Your task to perform on an android device: Open settings Image 0: 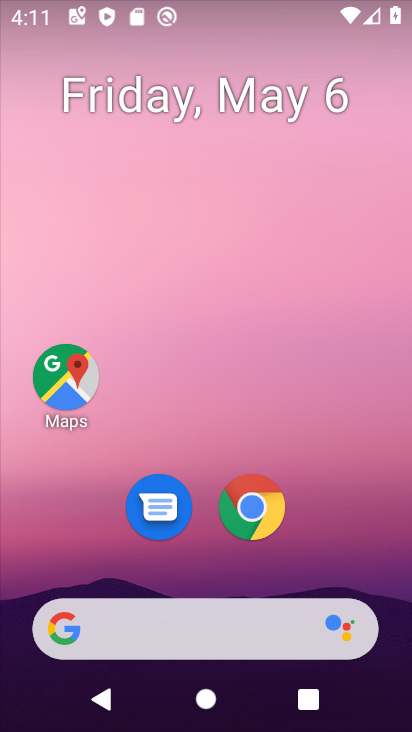
Step 0: drag from (333, 532) to (324, 3)
Your task to perform on an android device: Open settings Image 1: 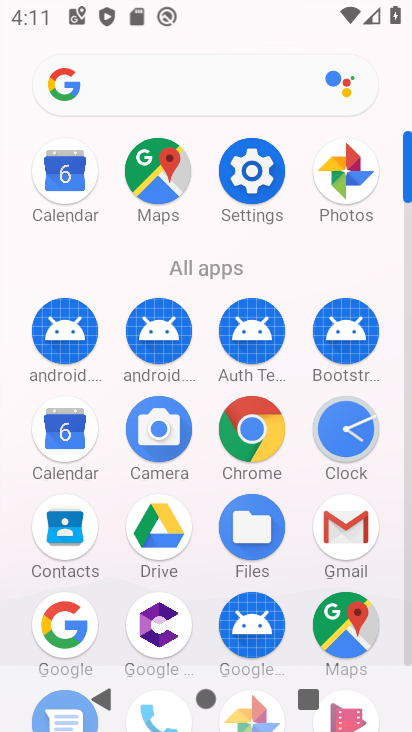
Step 1: click (255, 218)
Your task to perform on an android device: Open settings Image 2: 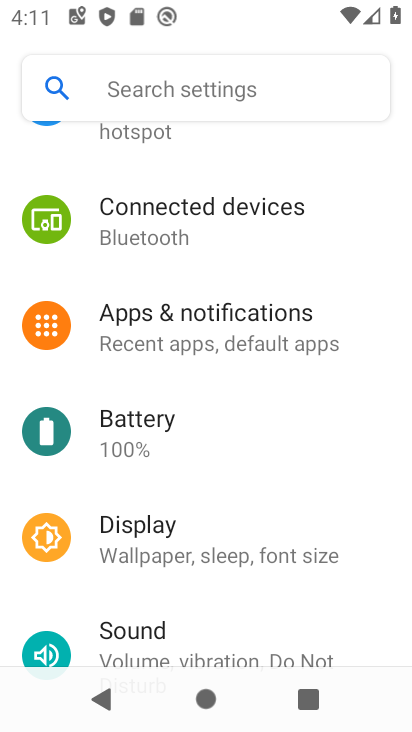
Step 2: task complete